Your task to perform on an android device: What is the news today? Image 0: 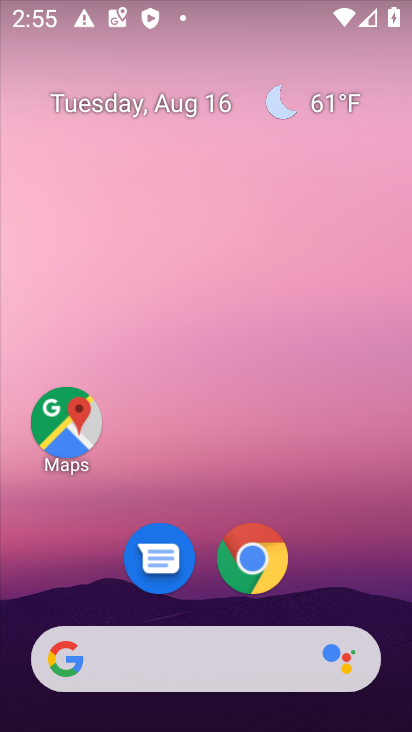
Step 0: drag from (7, 336) to (382, 305)
Your task to perform on an android device: What is the news today? Image 1: 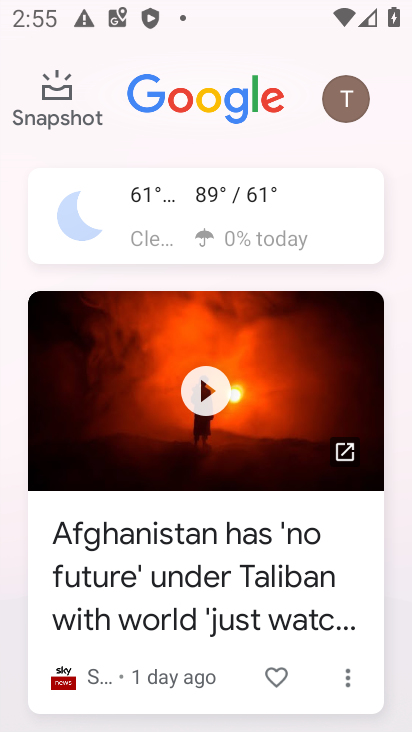
Step 1: task complete